Your task to perform on an android device: Go to Google maps Image 0: 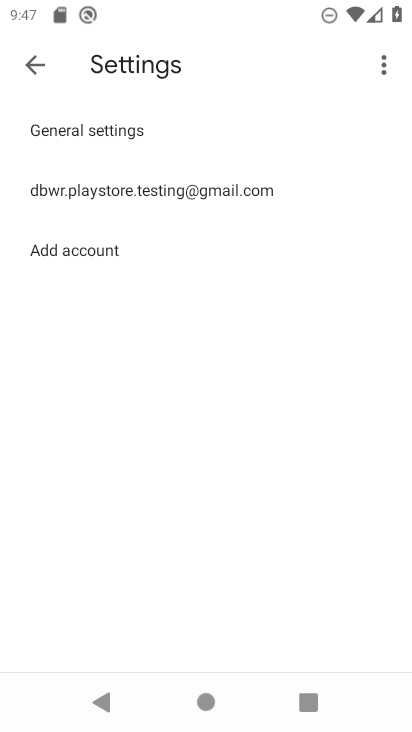
Step 0: press home button
Your task to perform on an android device: Go to Google maps Image 1: 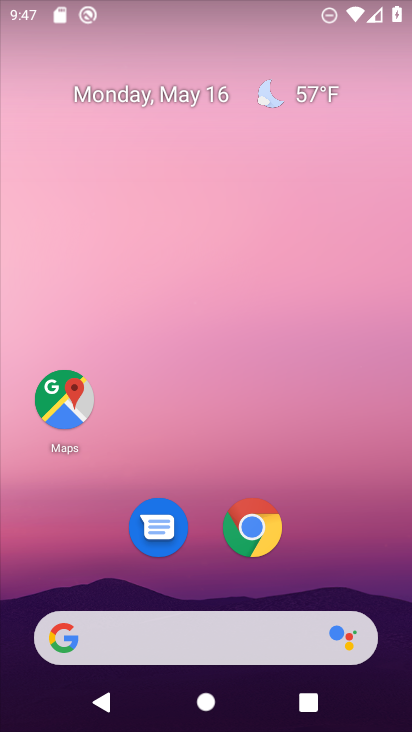
Step 1: click (72, 386)
Your task to perform on an android device: Go to Google maps Image 2: 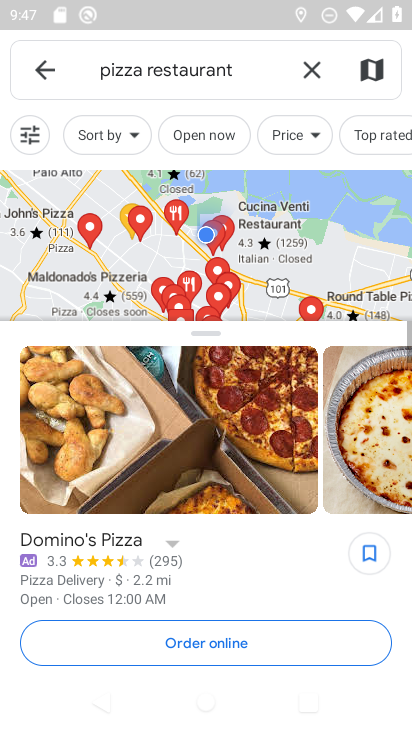
Step 2: click (47, 66)
Your task to perform on an android device: Go to Google maps Image 3: 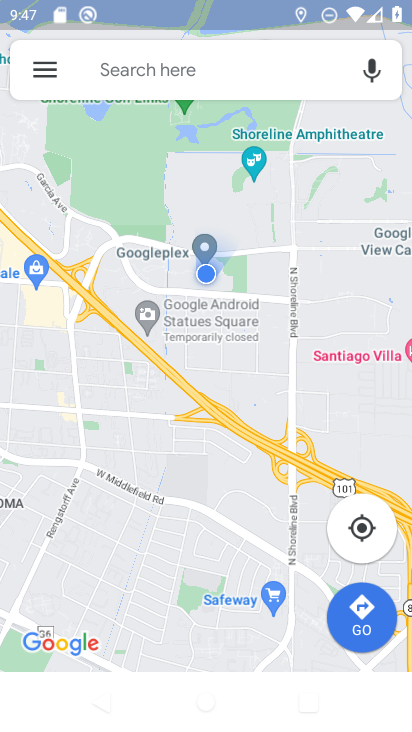
Step 3: task complete